Your task to perform on an android device: add a contact Image 0: 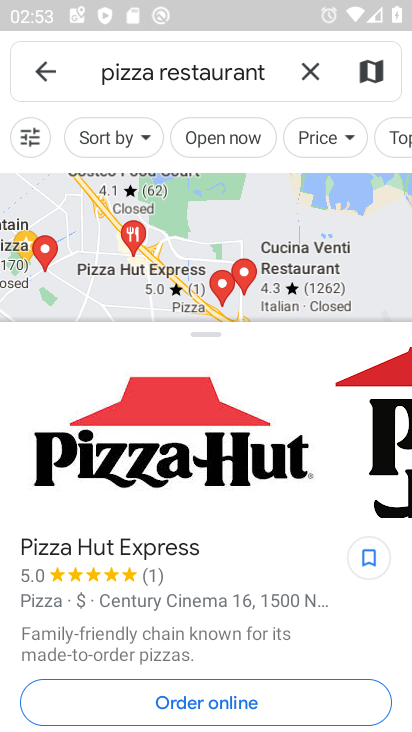
Step 0: press home button
Your task to perform on an android device: add a contact Image 1: 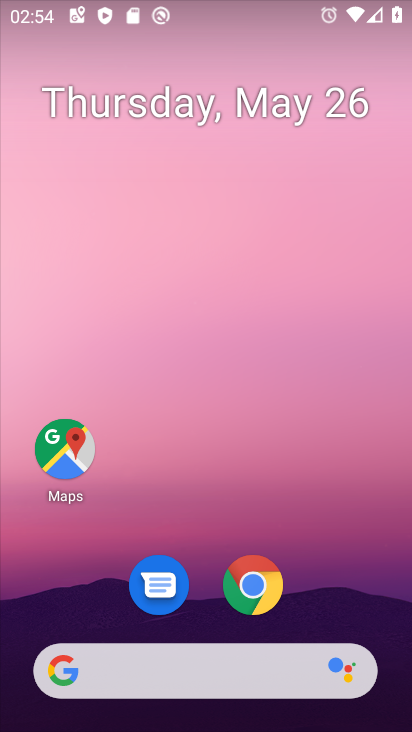
Step 1: drag from (228, 466) to (217, 30)
Your task to perform on an android device: add a contact Image 2: 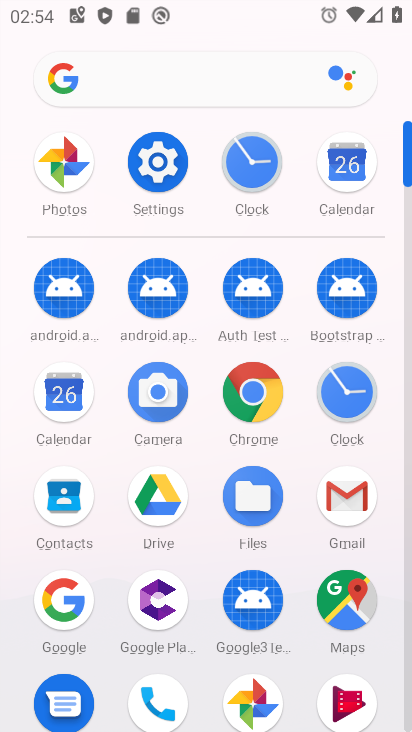
Step 2: click (75, 498)
Your task to perform on an android device: add a contact Image 3: 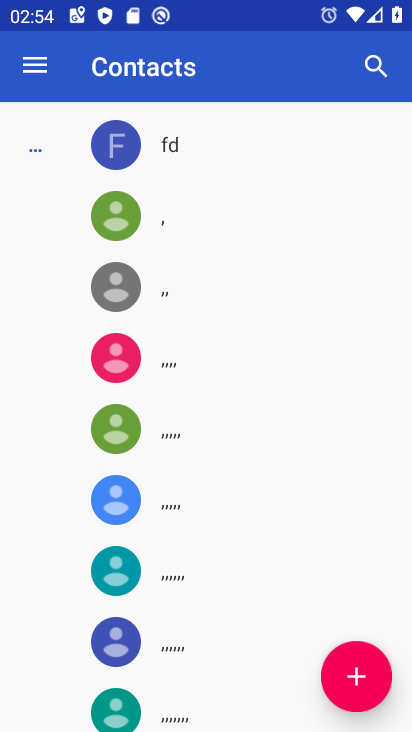
Step 3: click (363, 676)
Your task to perform on an android device: add a contact Image 4: 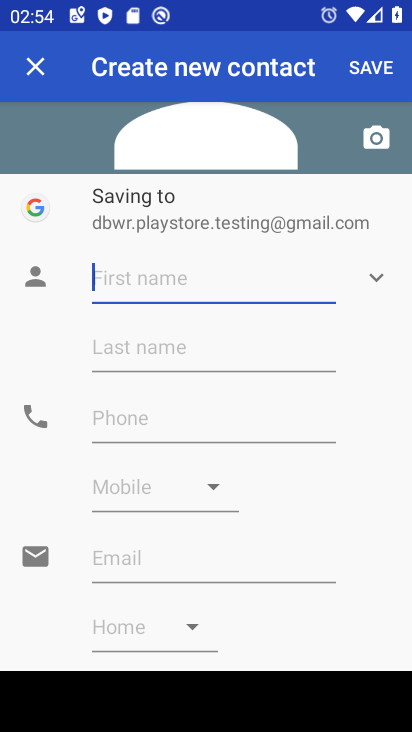
Step 4: type "Gyanvapi Mandir Kashi Bharat"
Your task to perform on an android device: add a contact Image 5: 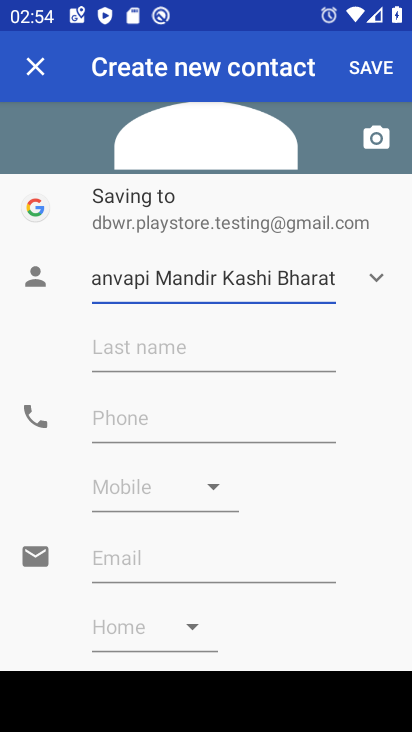
Step 5: click (234, 422)
Your task to perform on an android device: add a contact Image 6: 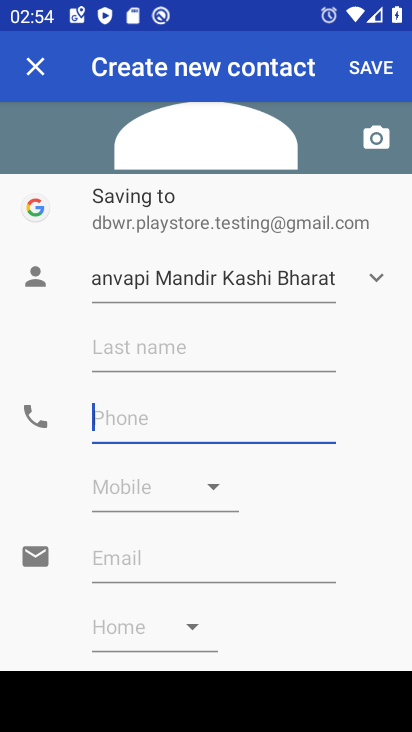
Step 6: type "05423334455"
Your task to perform on an android device: add a contact Image 7: 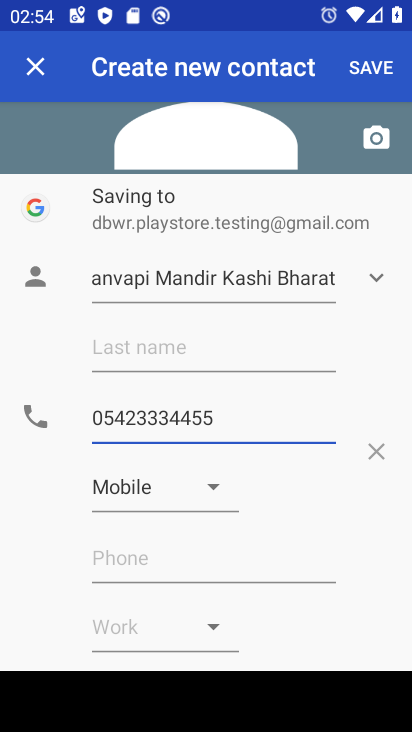
Step 7: click (381, 66)
Your task to perform on an android device: add a contact Image 8: 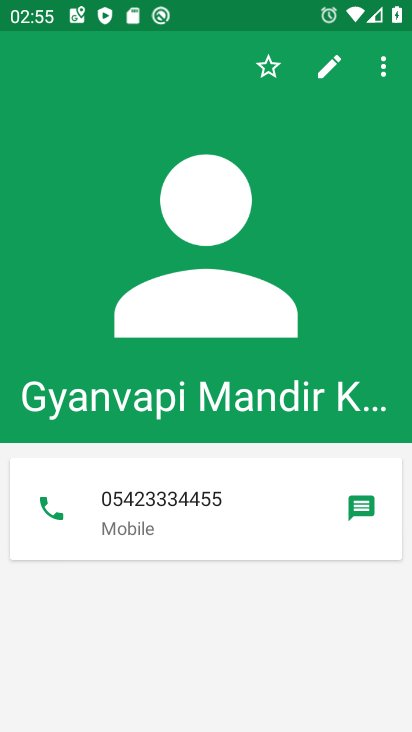
Step 8: task complete